Your task to perform on an android device: turn off javascript in the chrome app Image 0: 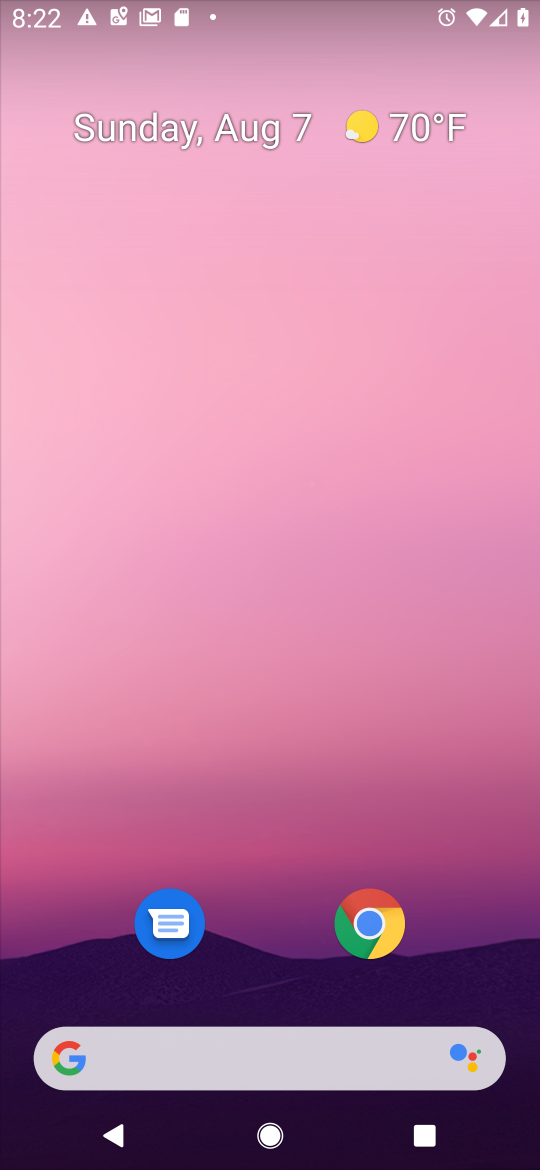
Step 0: drag from (520, 961) to (204, 78)
Your task to perform on an android device: turn off javascript in the chrome app Image 1: 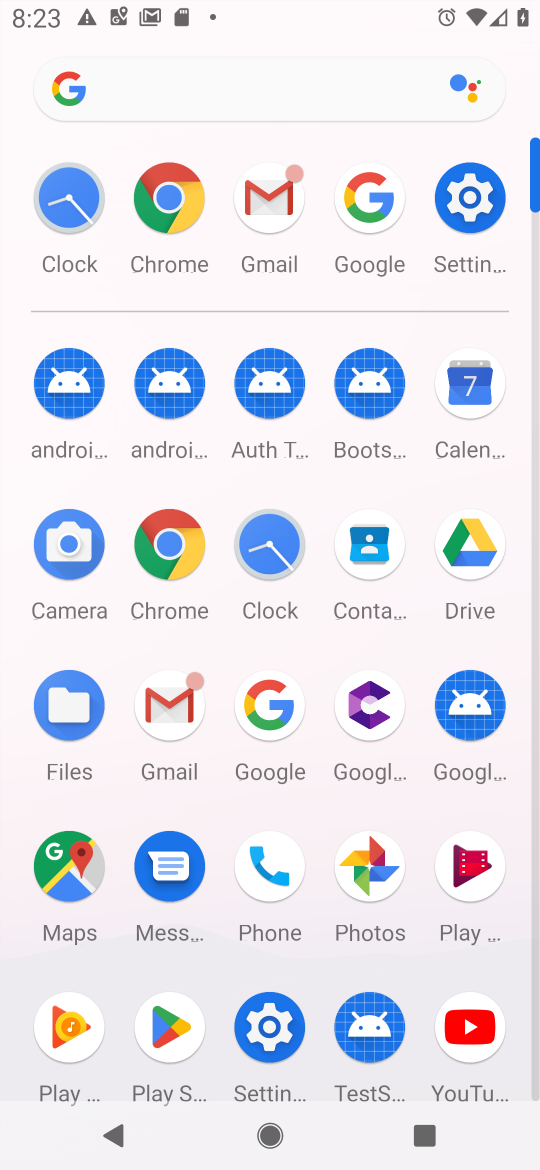
Step 1: click (198, 556)
Your task to perform on an android device: turn off javascript in the chrome app Image 2: 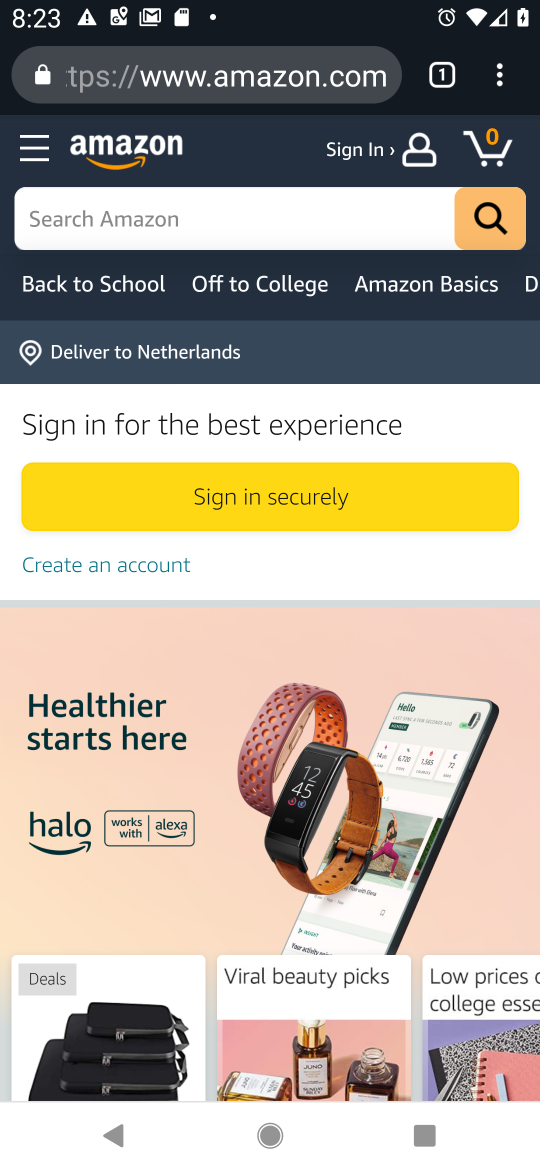
Step 2: click (514, 77)
Your task to perform on an android device: turn off javascript in the chrome app Image 3: 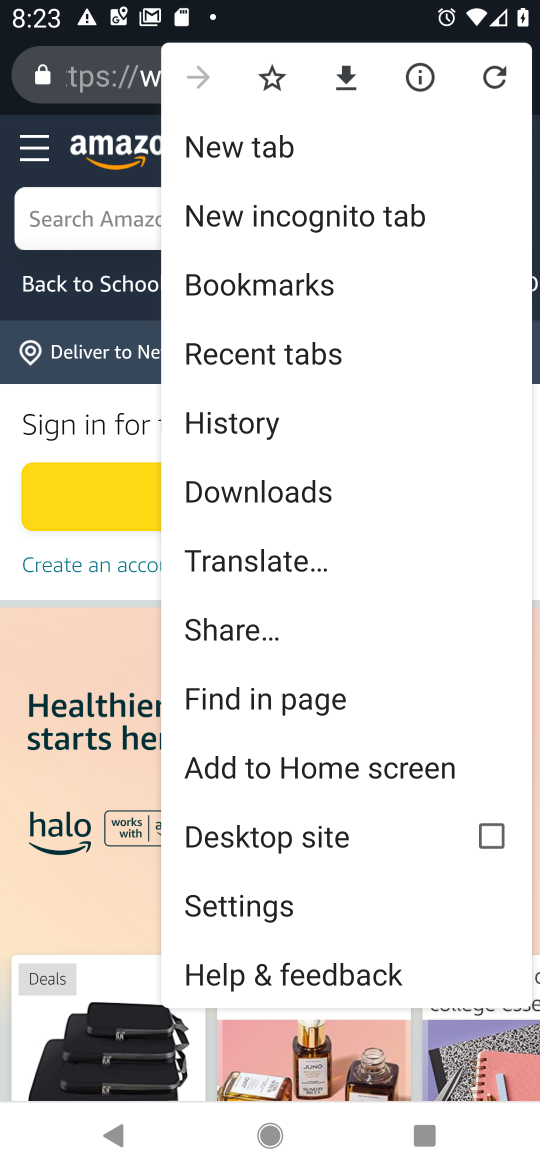
Step 3: click (242, 920)
Your task to perform on an android device: turn off javascript in the chrome app Image 4: 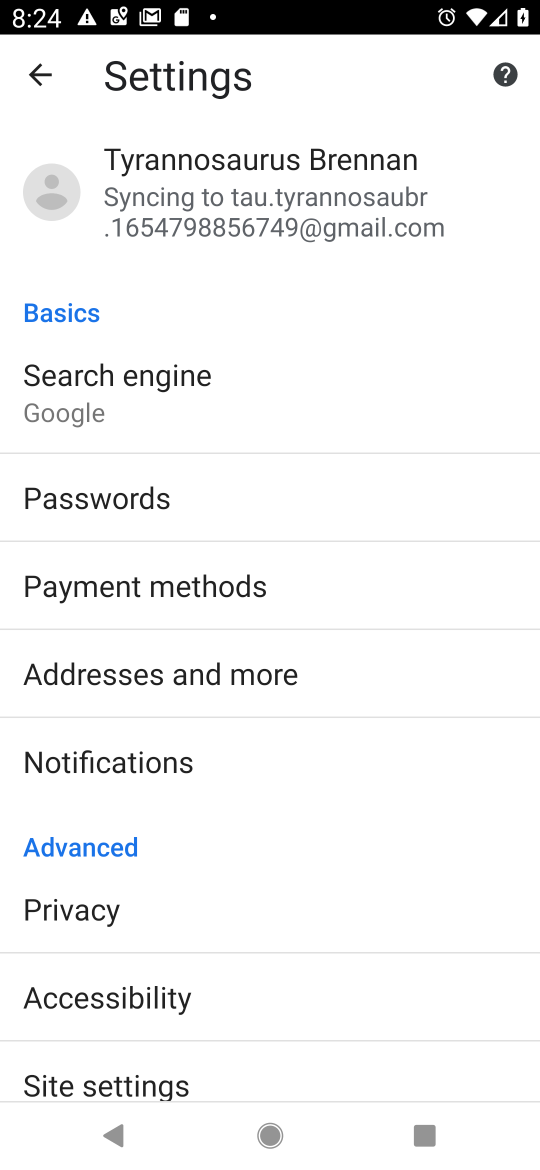
Step 4: click (174, 1065)
Your task to perform on an android device: turn off javascript in the chrome app Image 5: 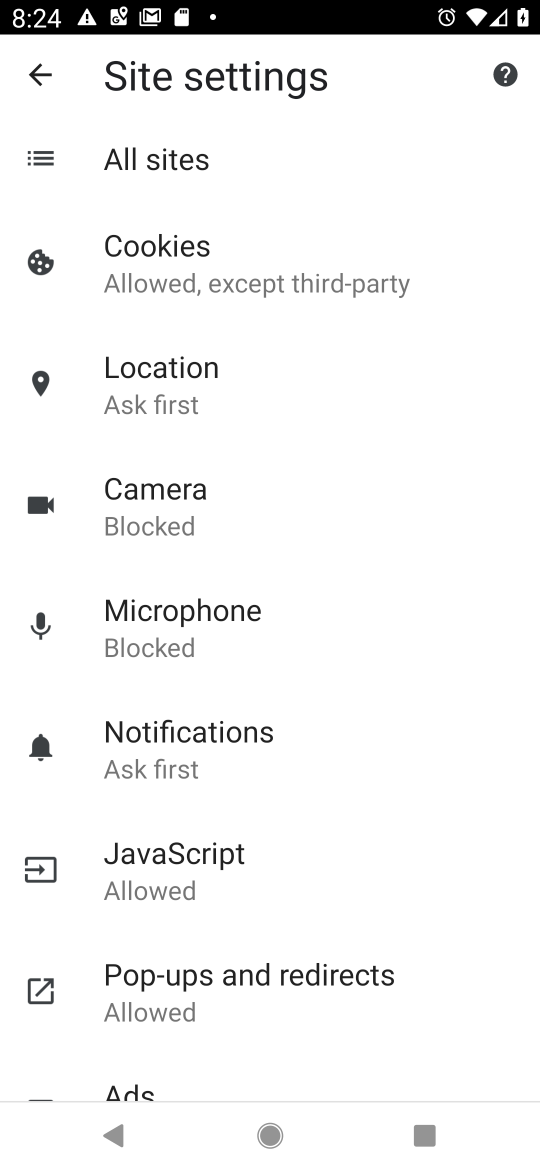
Step 5: click (167, 892)
Your task to perform on an android device: turn off javascript in the chrome app Image 6: 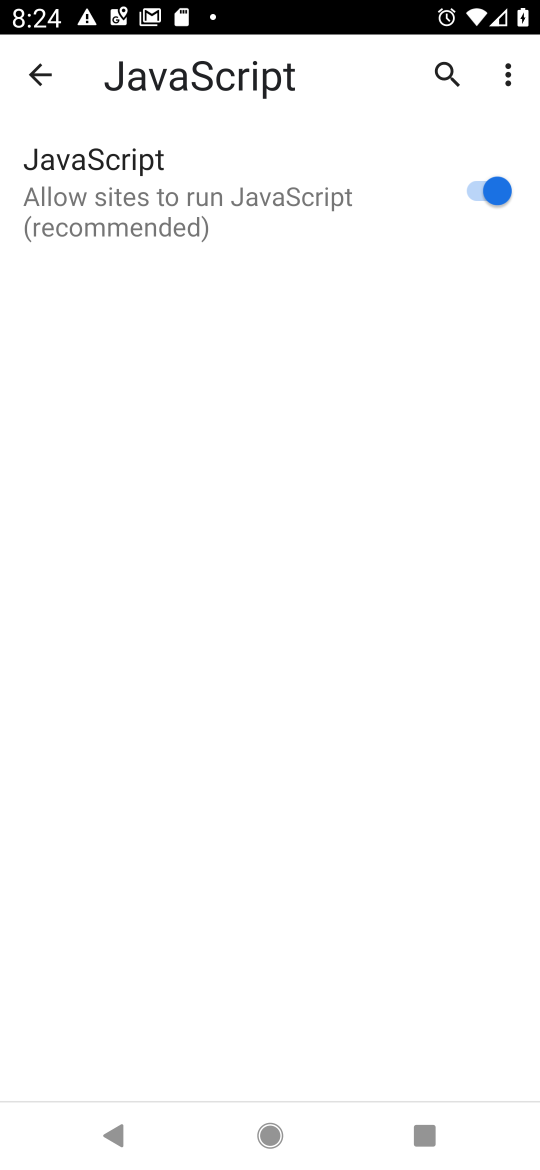
Step 6: click (496, 188)
Your task to perform on an android device: turn off javascript in the chrome app Image 7: 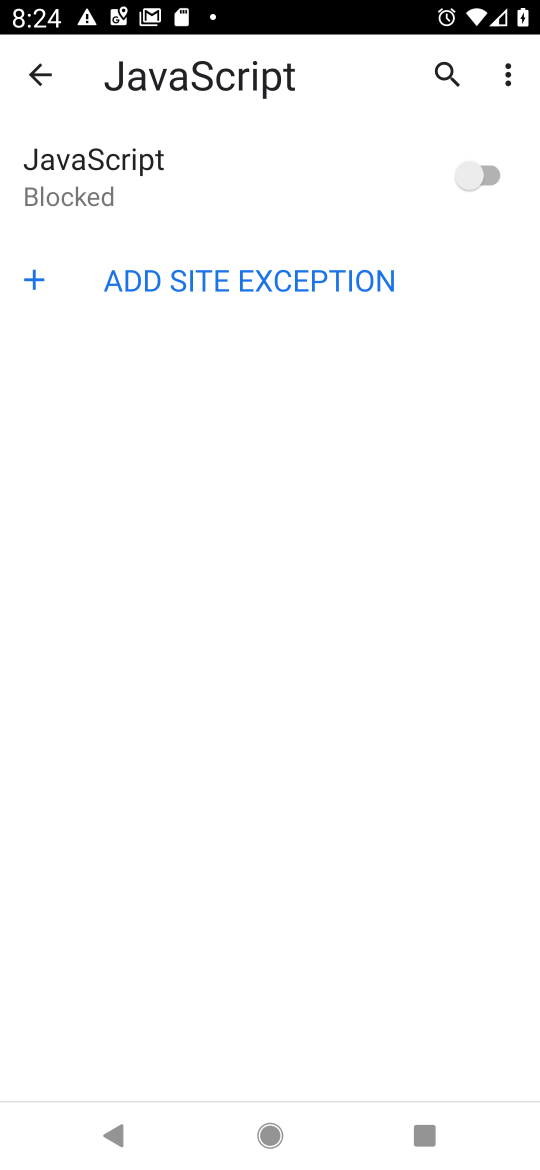
Step 7: task complete